Your task to perform on an android device: search for starred emails in the gmail app Image 0: 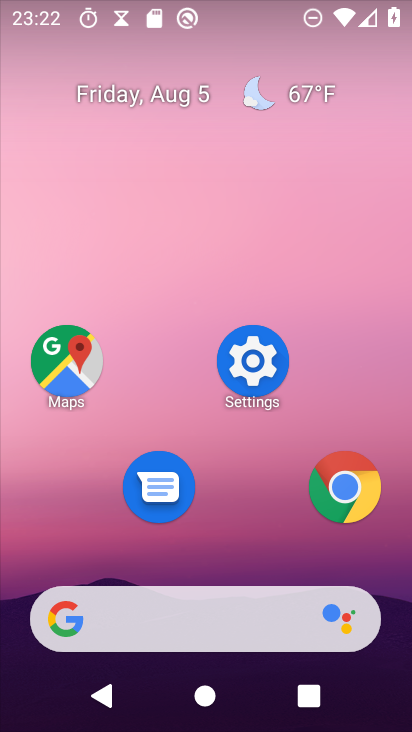
Step 0: press home button
Your task to perform on an android device: search for starred emails in the gmail app Image 1: 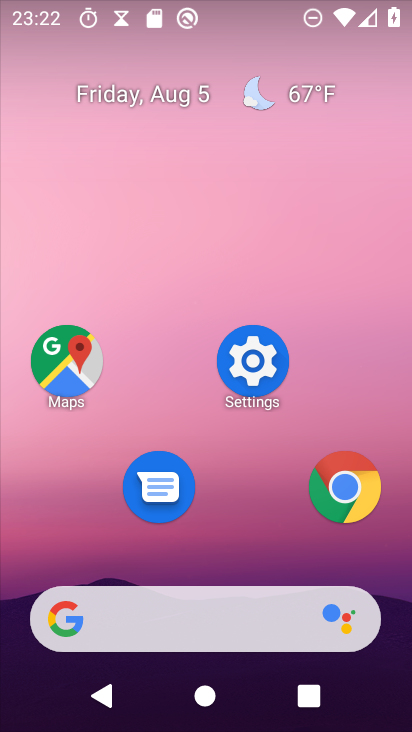
Step 1: drag from (219, 614) to (317, 20)
Your task to perform on an android device: search for starred emails in the gmail app Image 2: 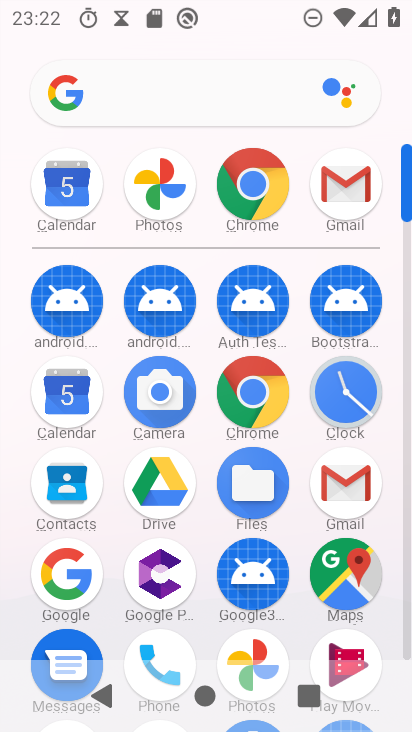
Step 2: click (347, 186)
Your task to perform on an android device: search for starred emails in the gmail app Image 3: 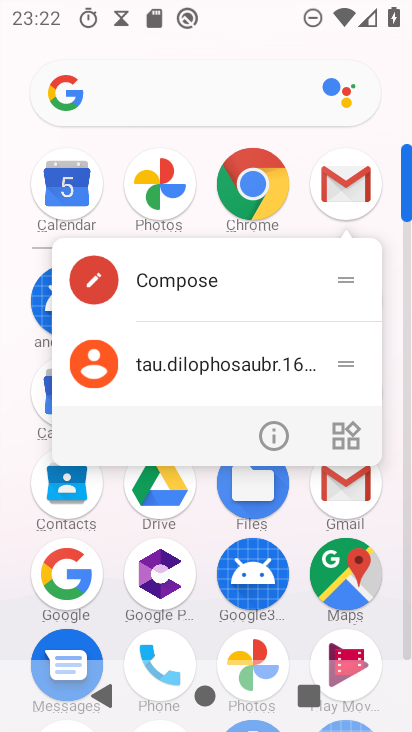
Step 3: click (347, 185)
Your task to perform on an android device: search for starred emails in the gmail app Image 4: 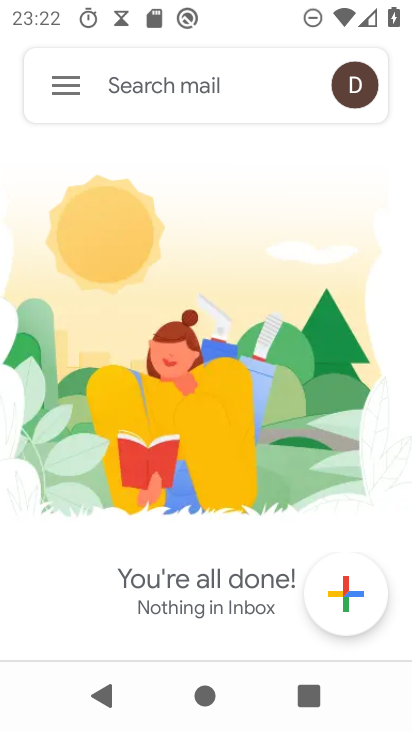
Step 4: click (60, 81)
Your task to perform on an android device: search for starred emails in the gmail app Image 5: 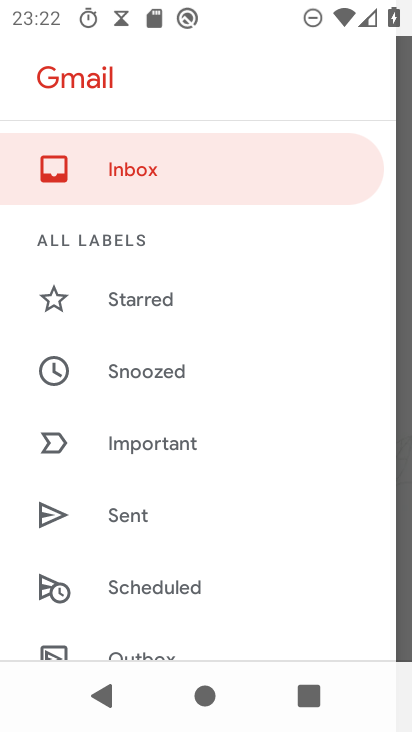
Step 5: click (134, 299)
Your task to perform on an android device: search for starred emails in the gmail app Image 6: 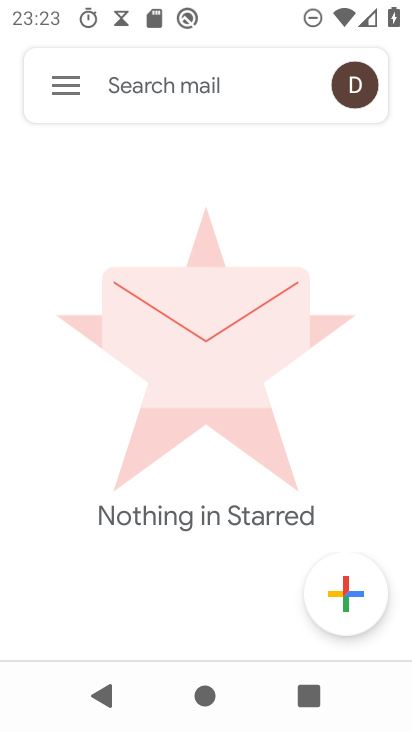
Step 6: task complete